Your task to perform on an android device: change notification settings in the gmail app Image 0: 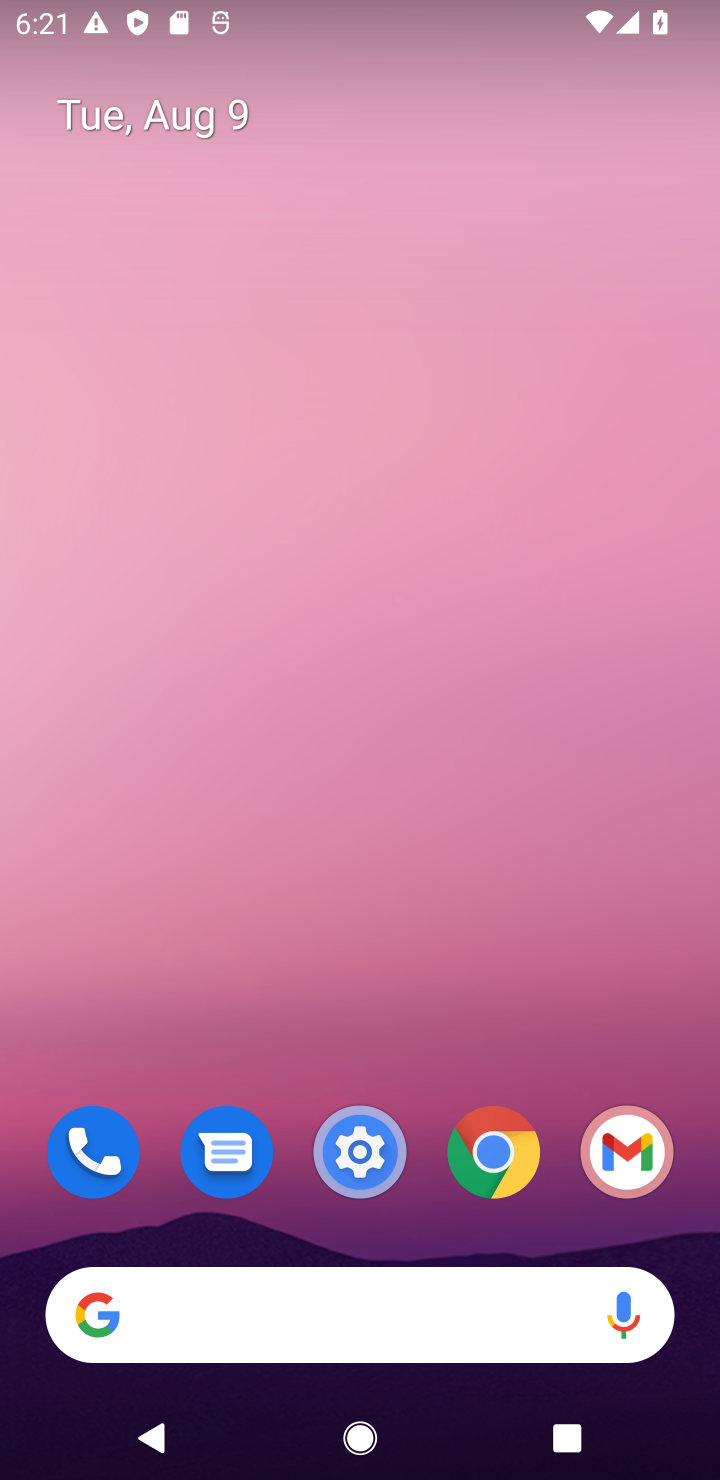
Step 0: click (649, 1150)
Your task to perform on an android device: change notification settings in the gmail app Image 1: 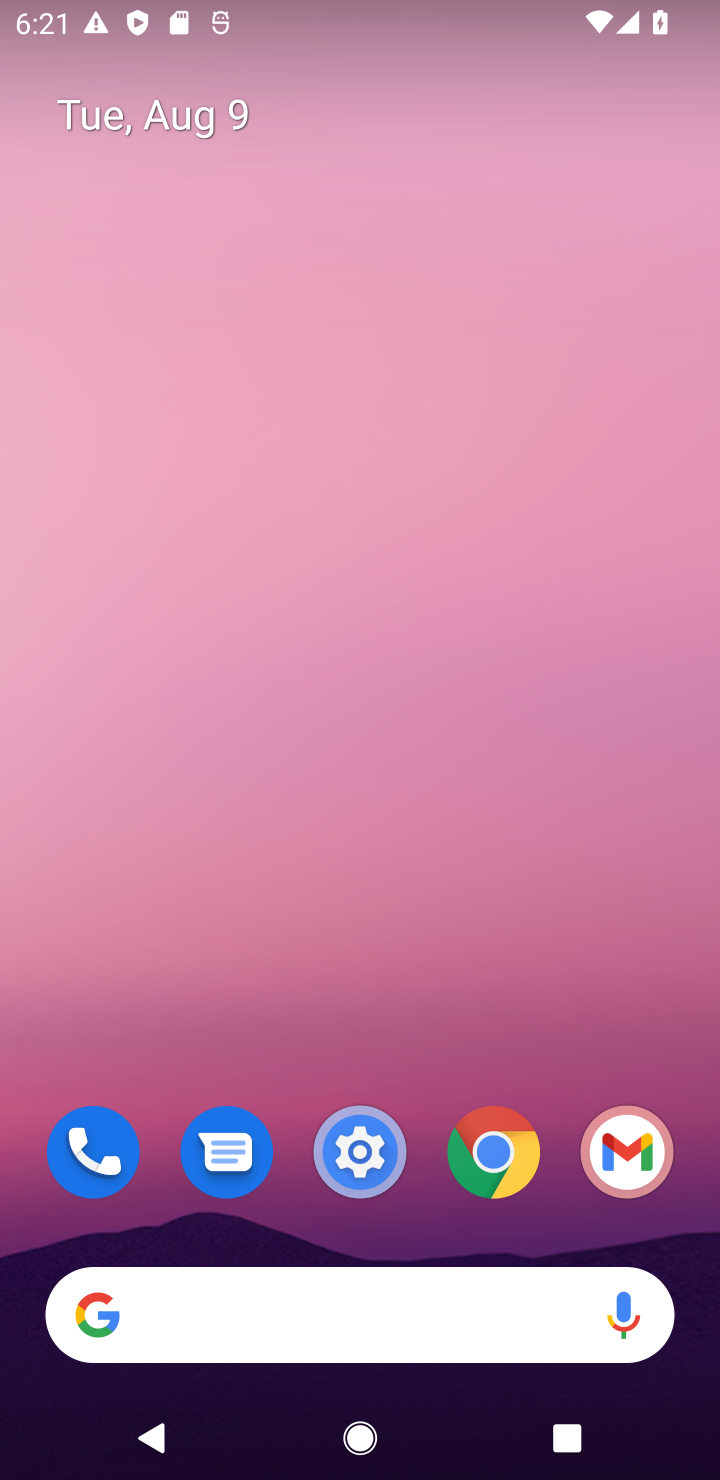
Step 1: click (626, 1143)
Your task to perform on an android device: change notification settings in the gmail app Image 2: 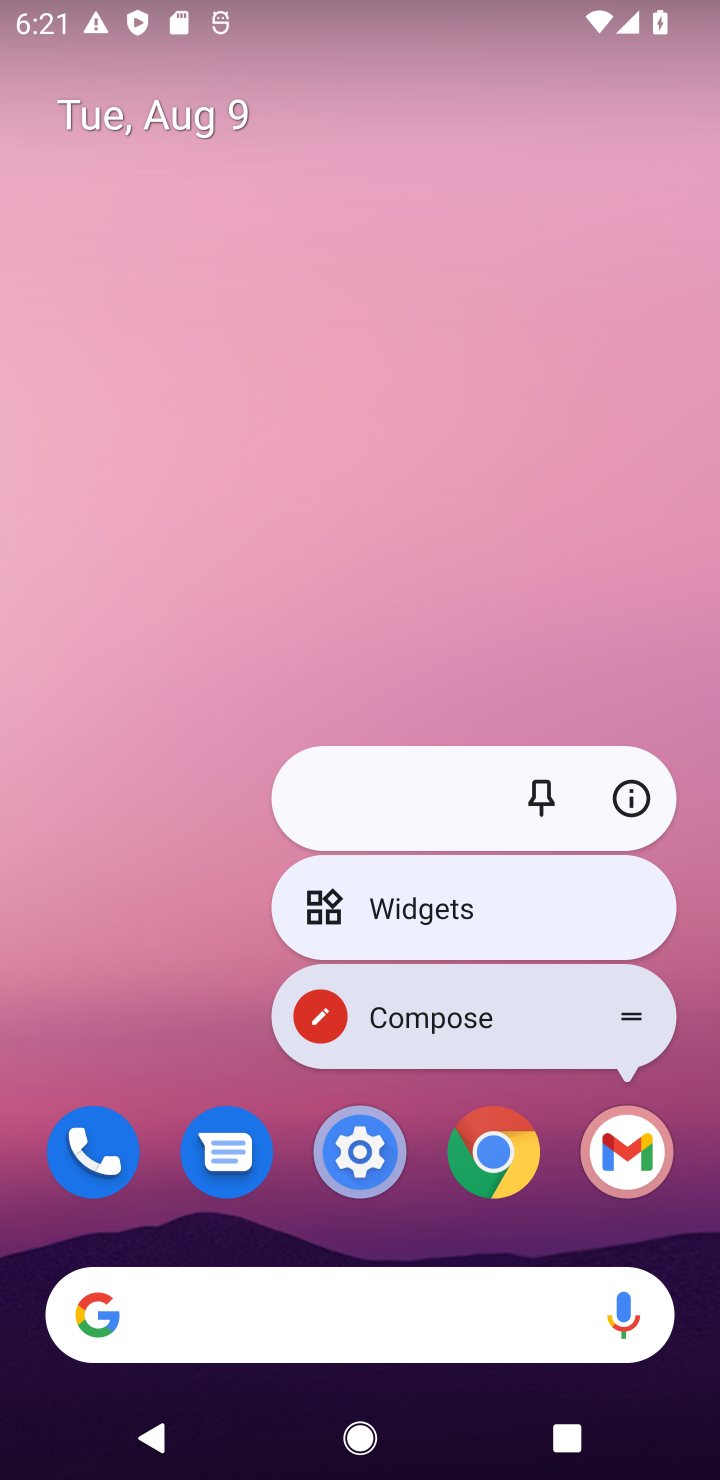
Step 2: click (622, 783)
Your task to perform on an android device: change notification settings in the gmail app Image 3: 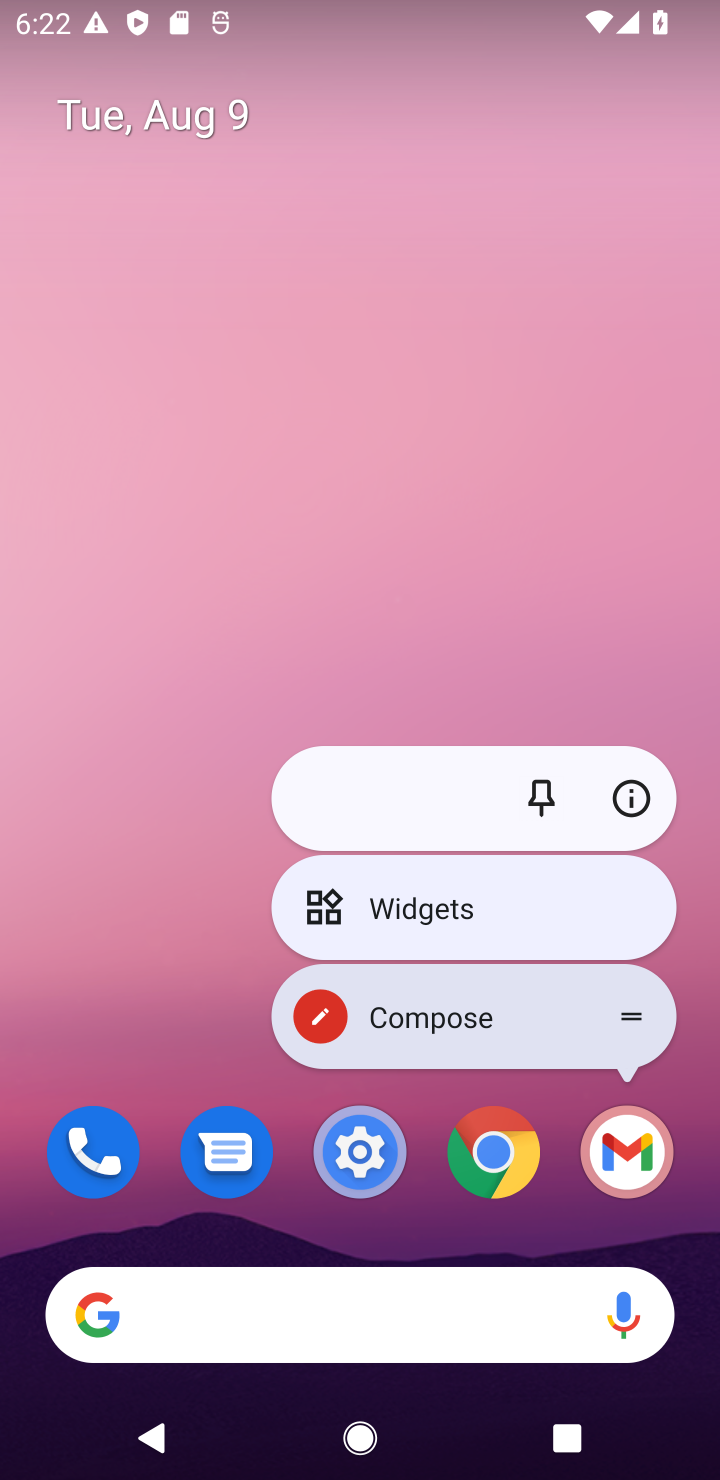
Step 3: click (617, 815)
Your task to perform on an android device: change notification settings in the gmail app Image 4: 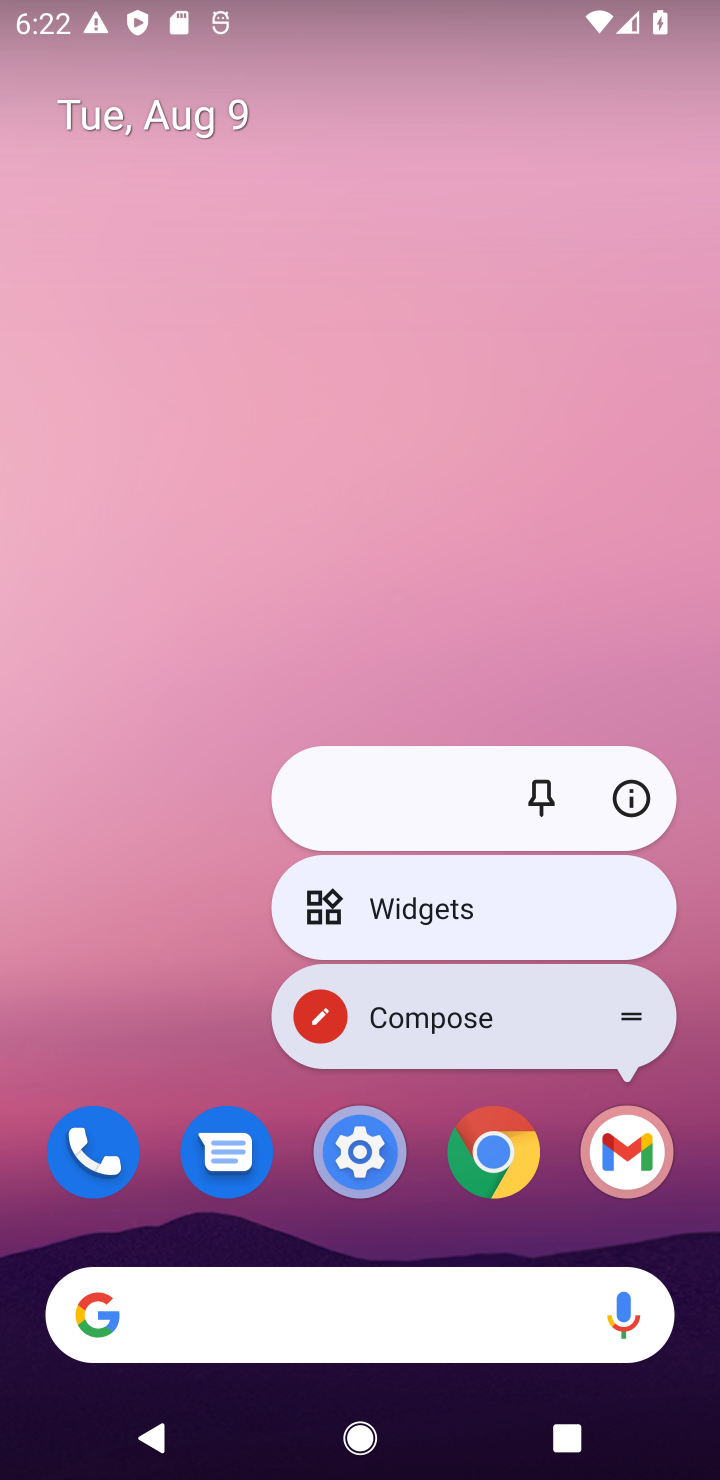
Step 4: click (634, 788)
Your task to perform on an android device: change notification settings in the gmail app Image 5: 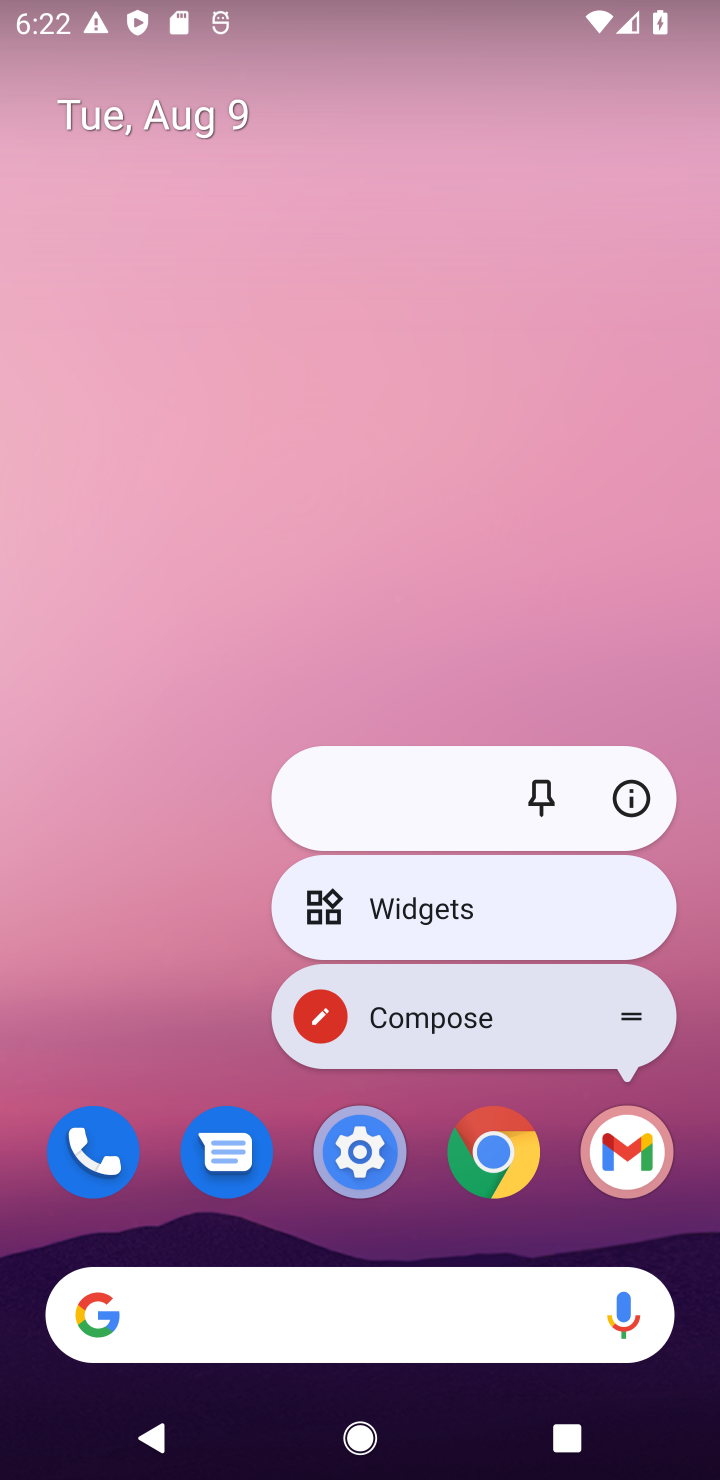
Step 5: click (640, 795)
Your task to perform on an android device: change notification settings in the gmail app Image 6: 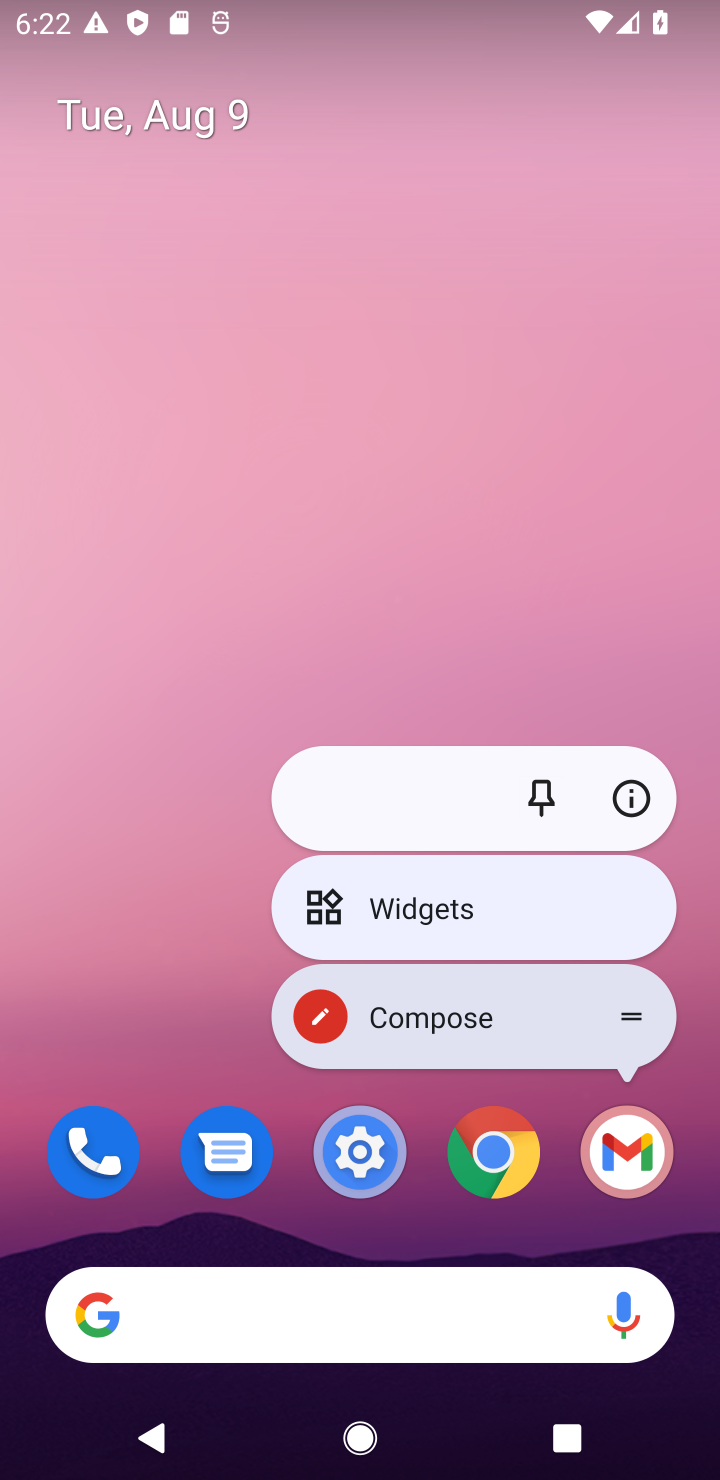
Step 6: click (640, 795)
Your task to perform on an android device: change notification settings in the gmail app Image 7: 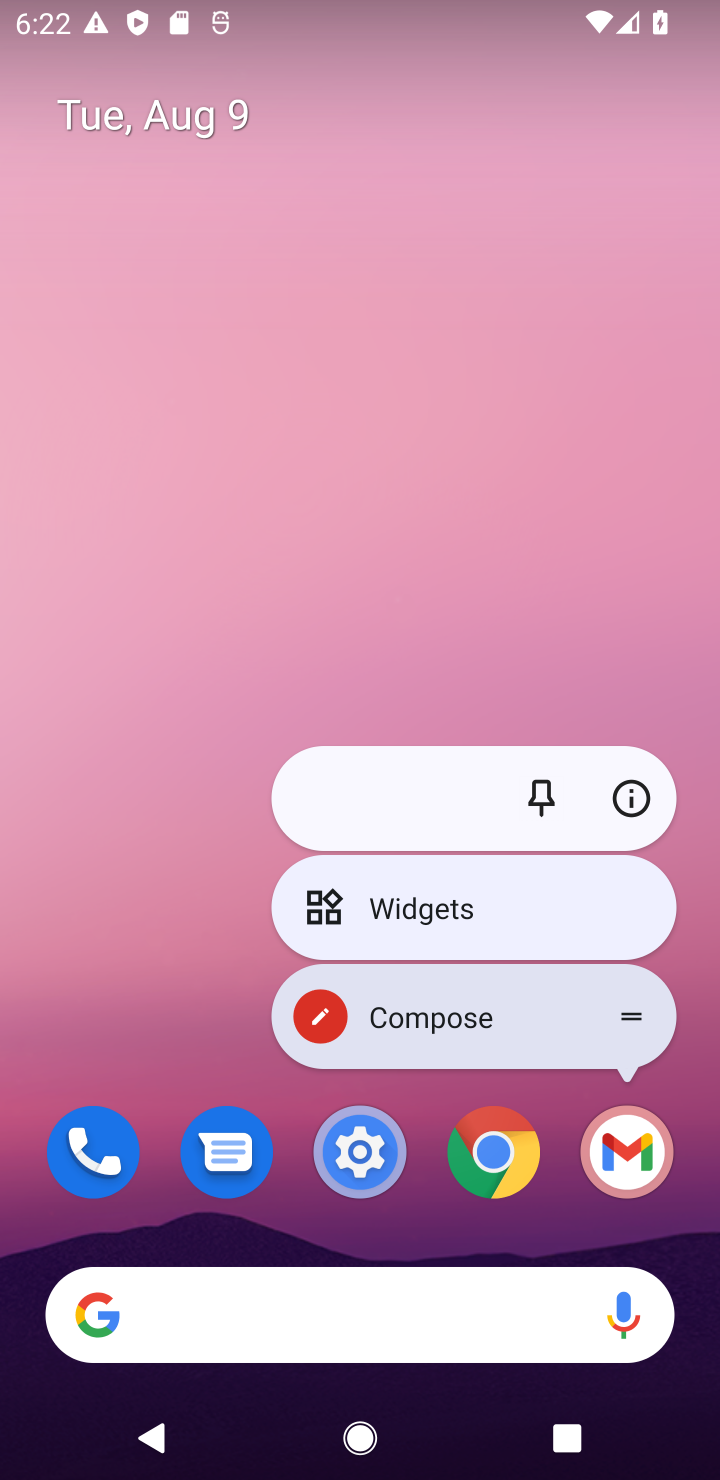
Step 7: click (183, 428)
Your task to perform on an android device: change notification settings in the gmail app Image 8: 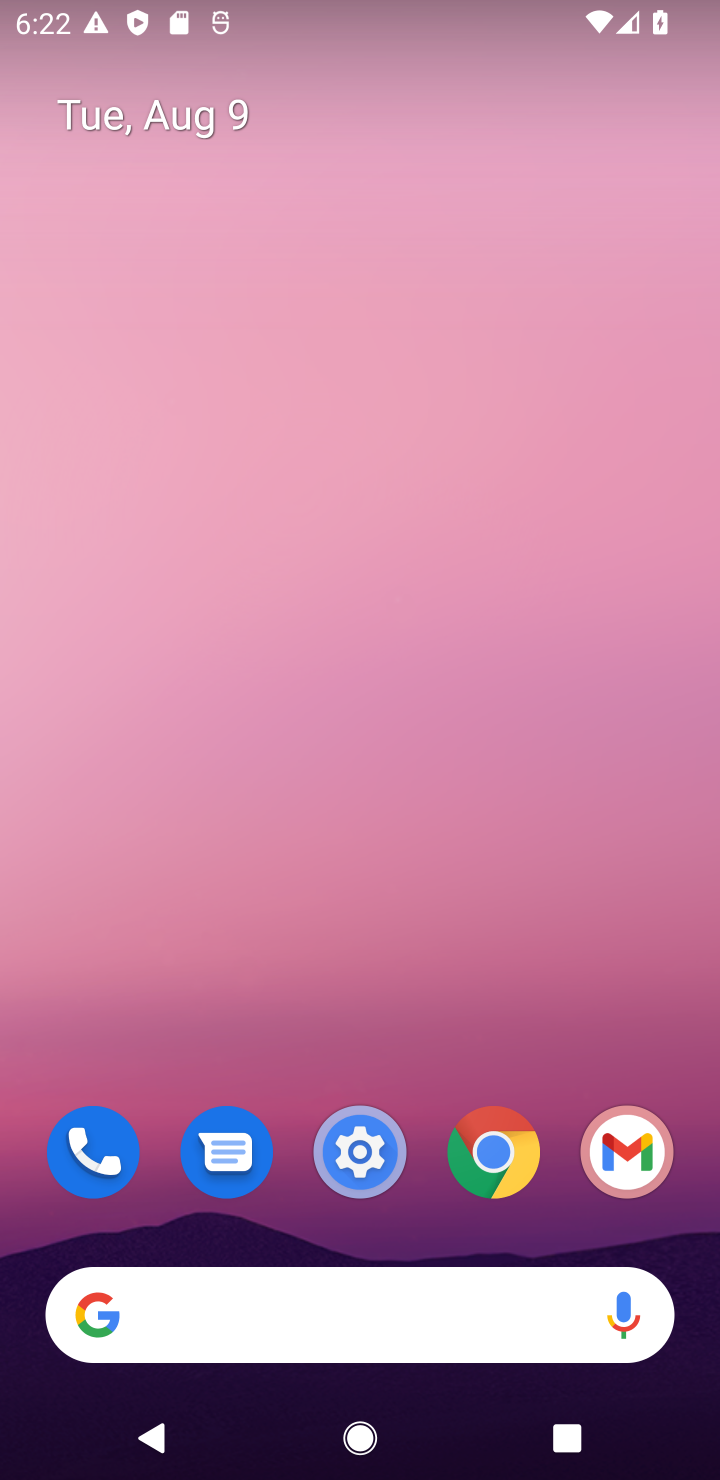
Step 8: click (637, 1154)
Your task to perform on an android device: change notification settings in the gmail app Image 9: 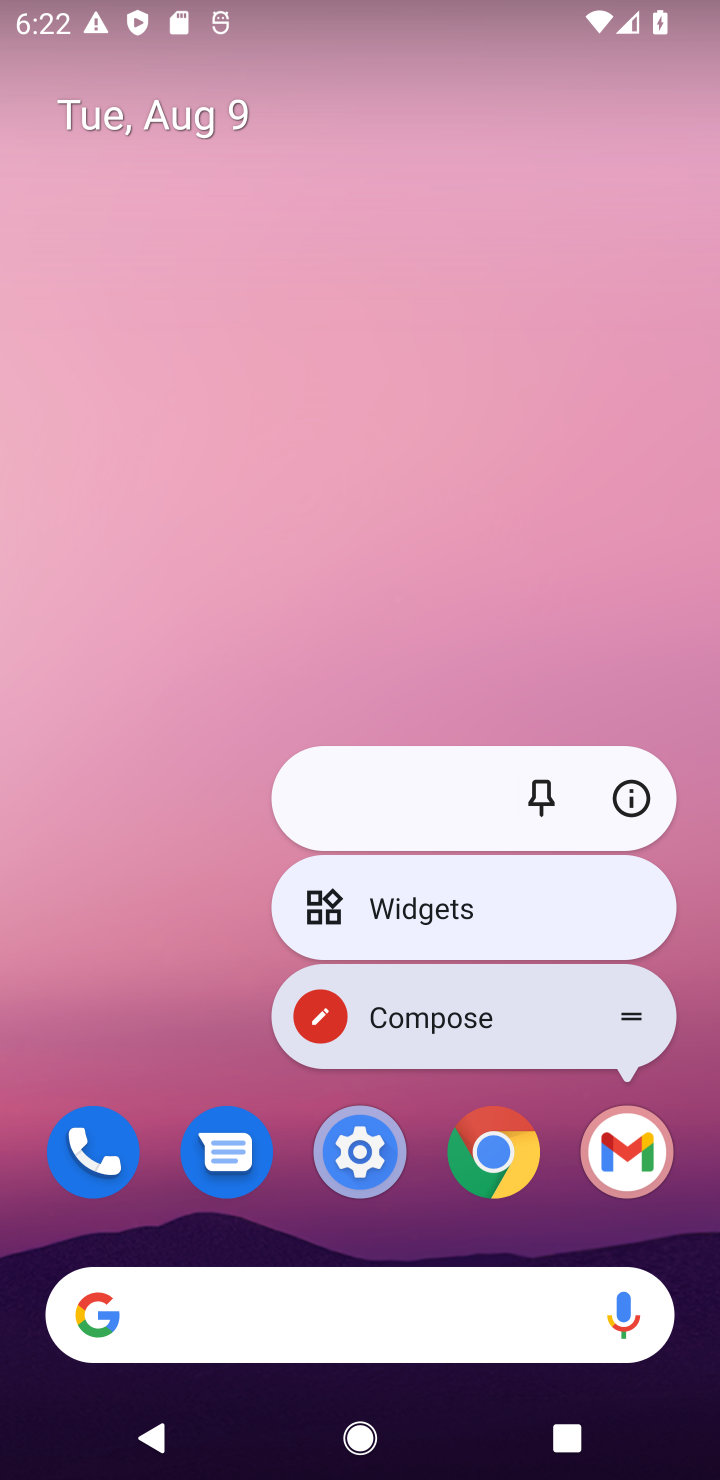
Step 9: click (629, 794)
Your task to perform on an android device: change notification settings in the gmail app Image 10: 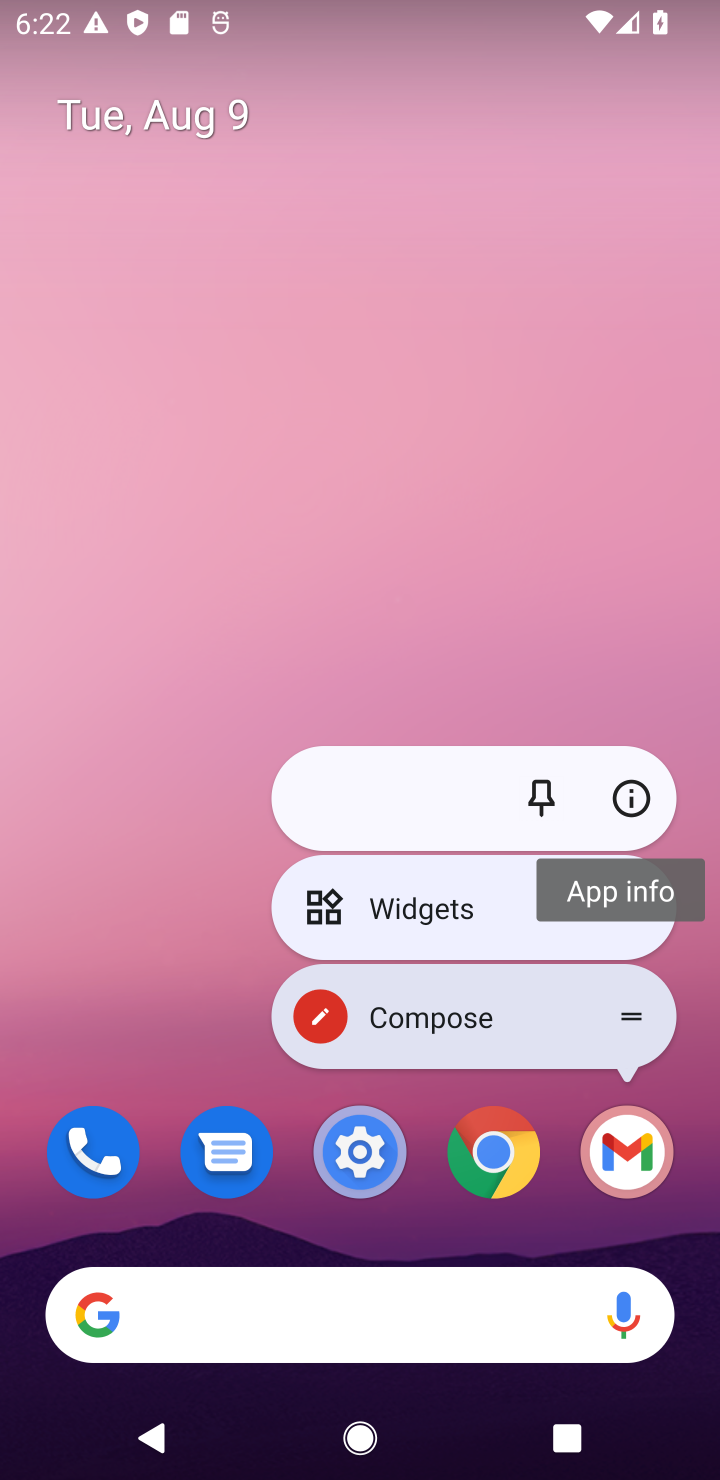
Step 10: click (629, 794)
Your task to perform on an android device: change notification settings in the gmail app Image 11: 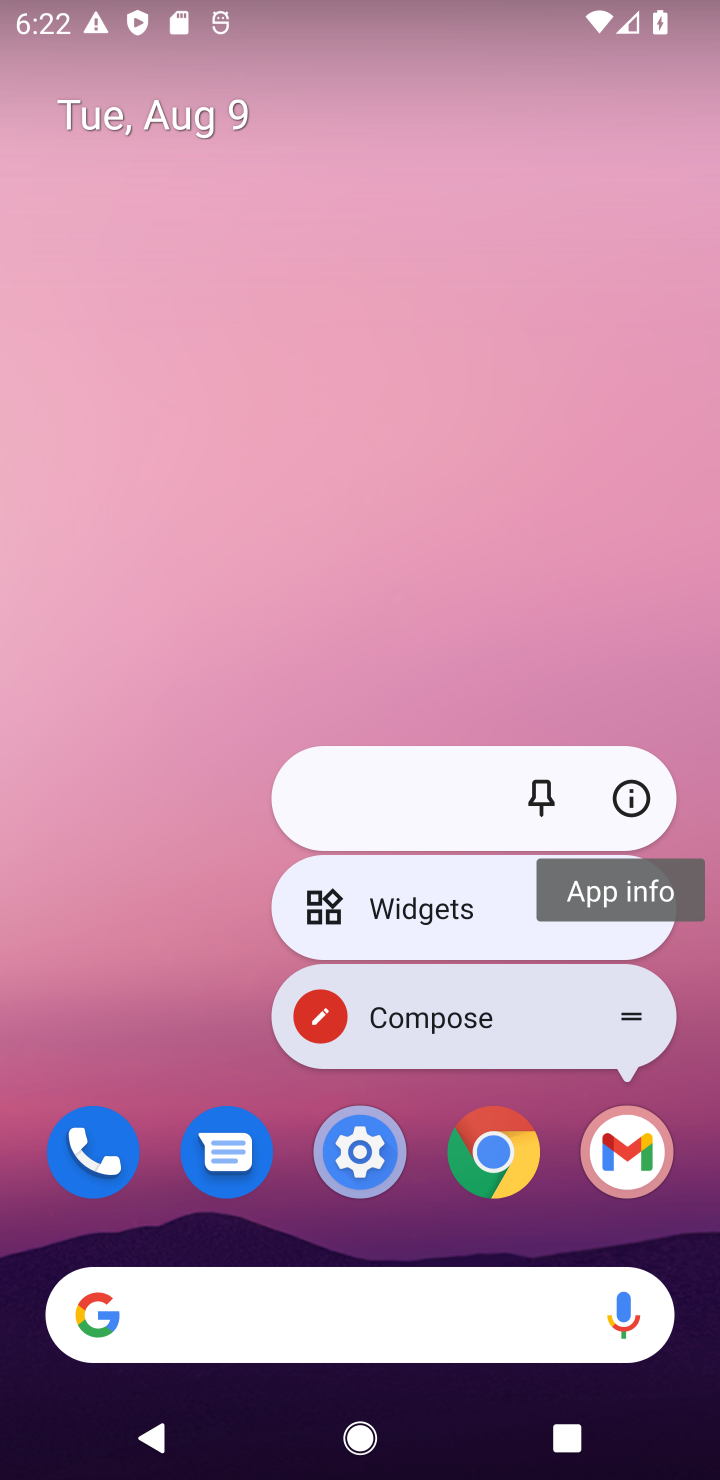
Step 11: click (664, 797)
Your task to perform on an android device: change notification settings in the gmail app Image 12: 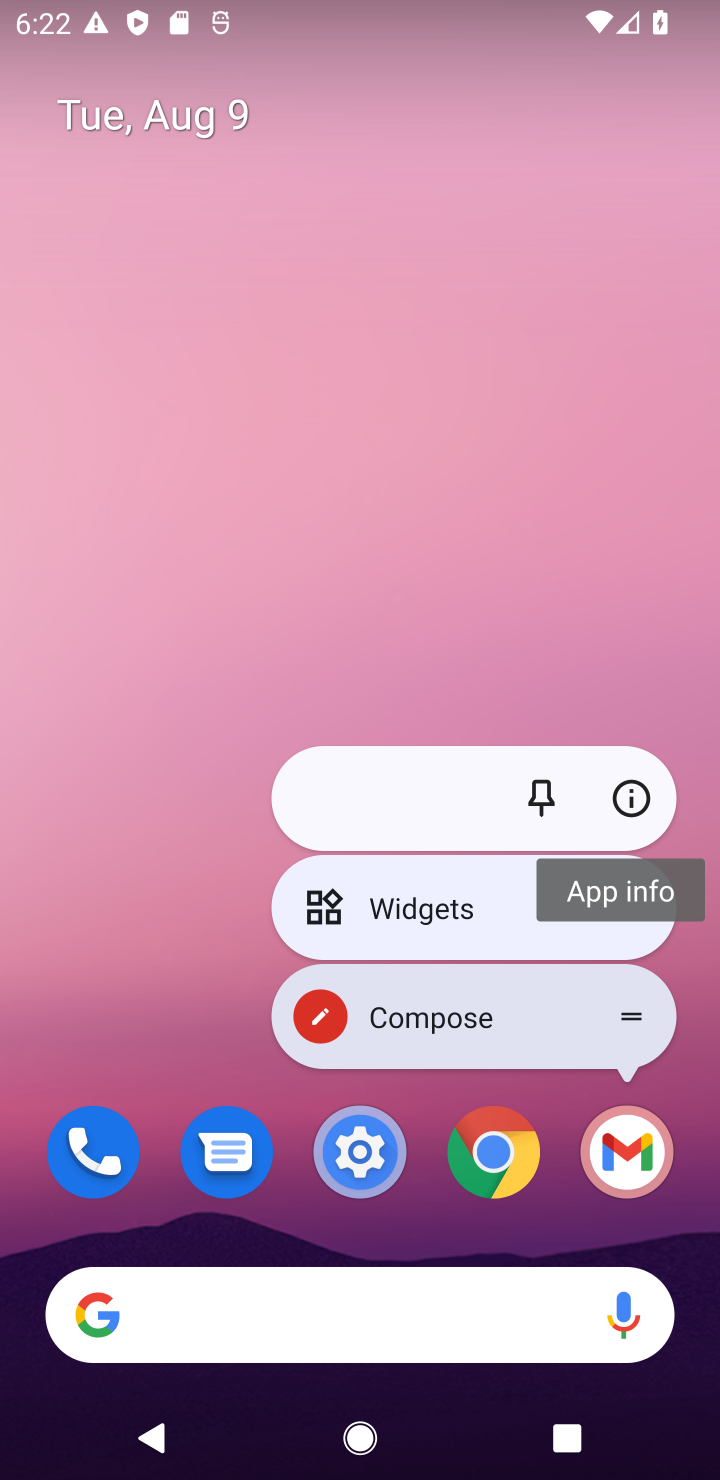
Step 12: click (644, 797)
Your task to perform on an android device: change notification settings in the gmail app Image 13: 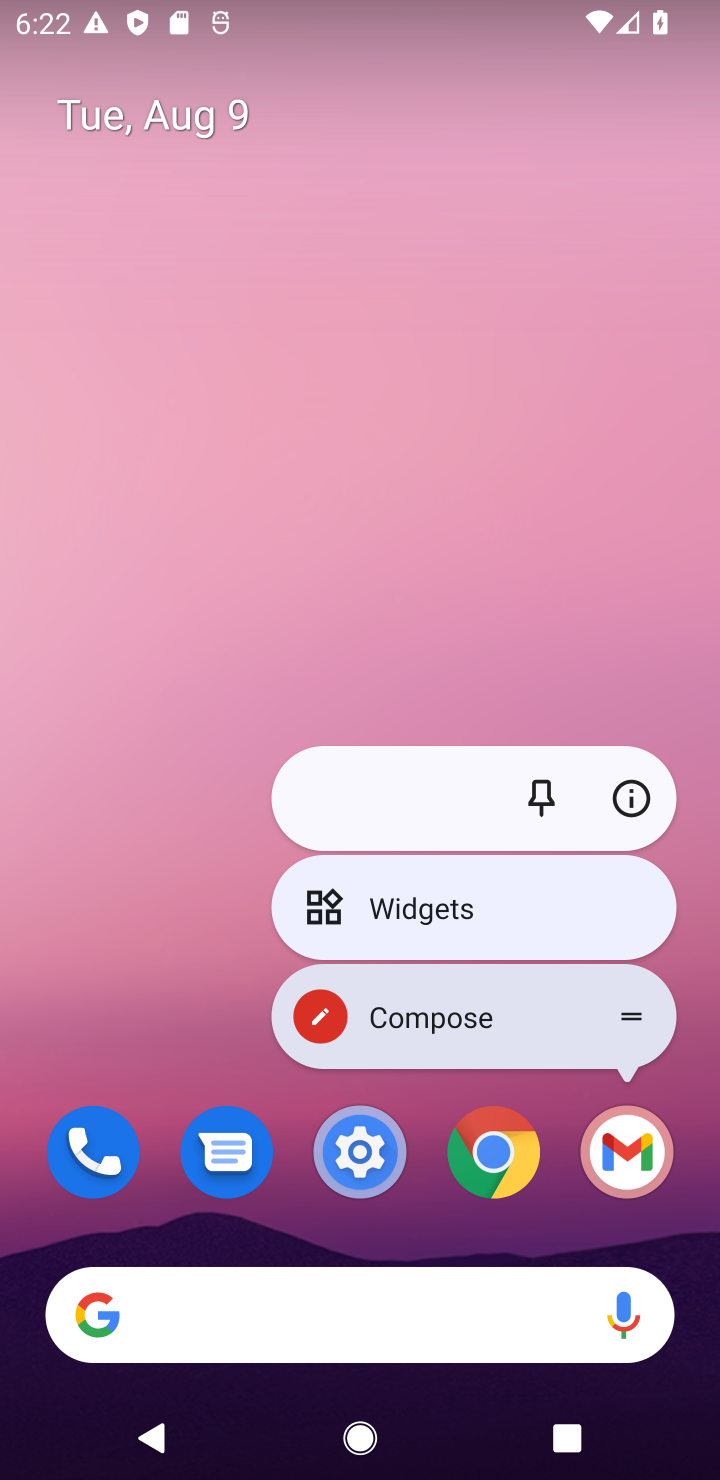
Step 13: click (627, 797)
Your task to perform on an android device: change notification settings in the gmail app Image 14: 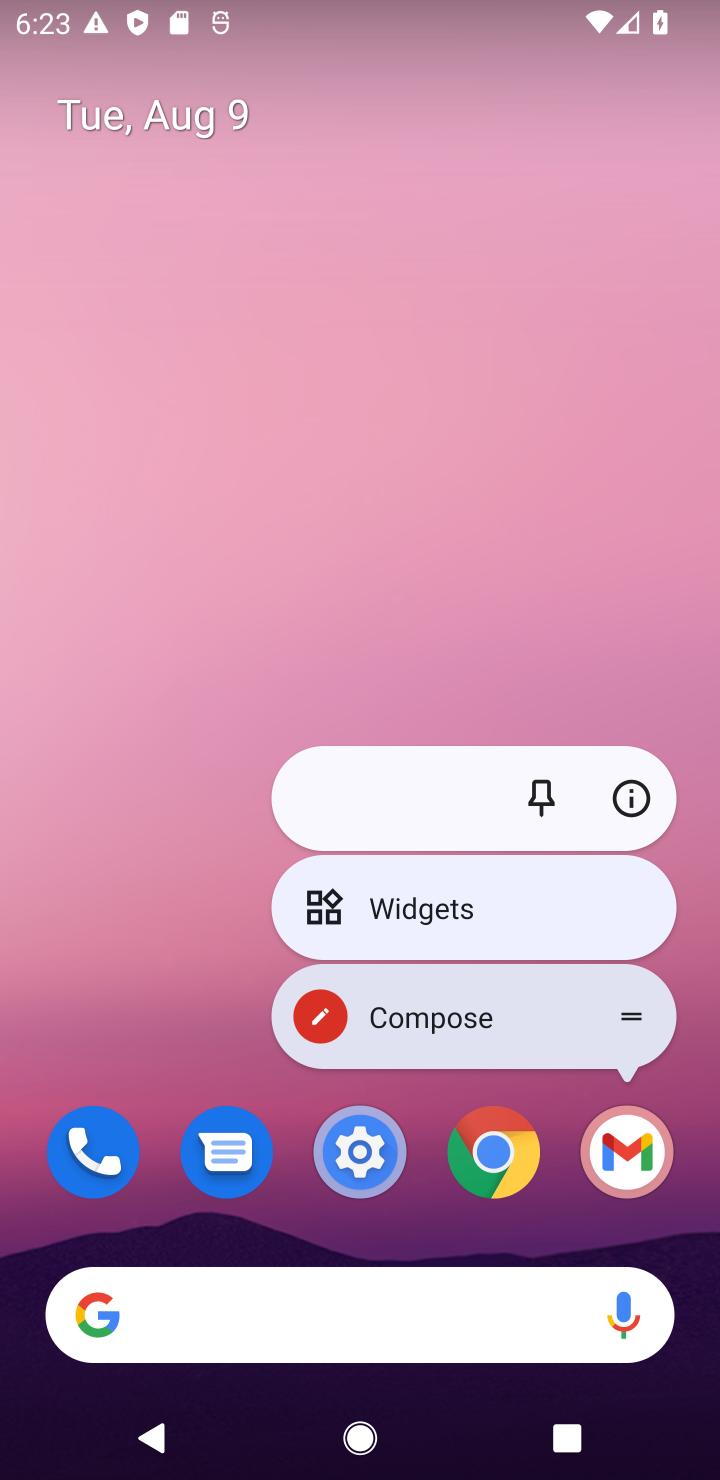
Step 14: click (631, 1162)
Your task to perform on an android device: change notification settings in the gmail app Image 15: 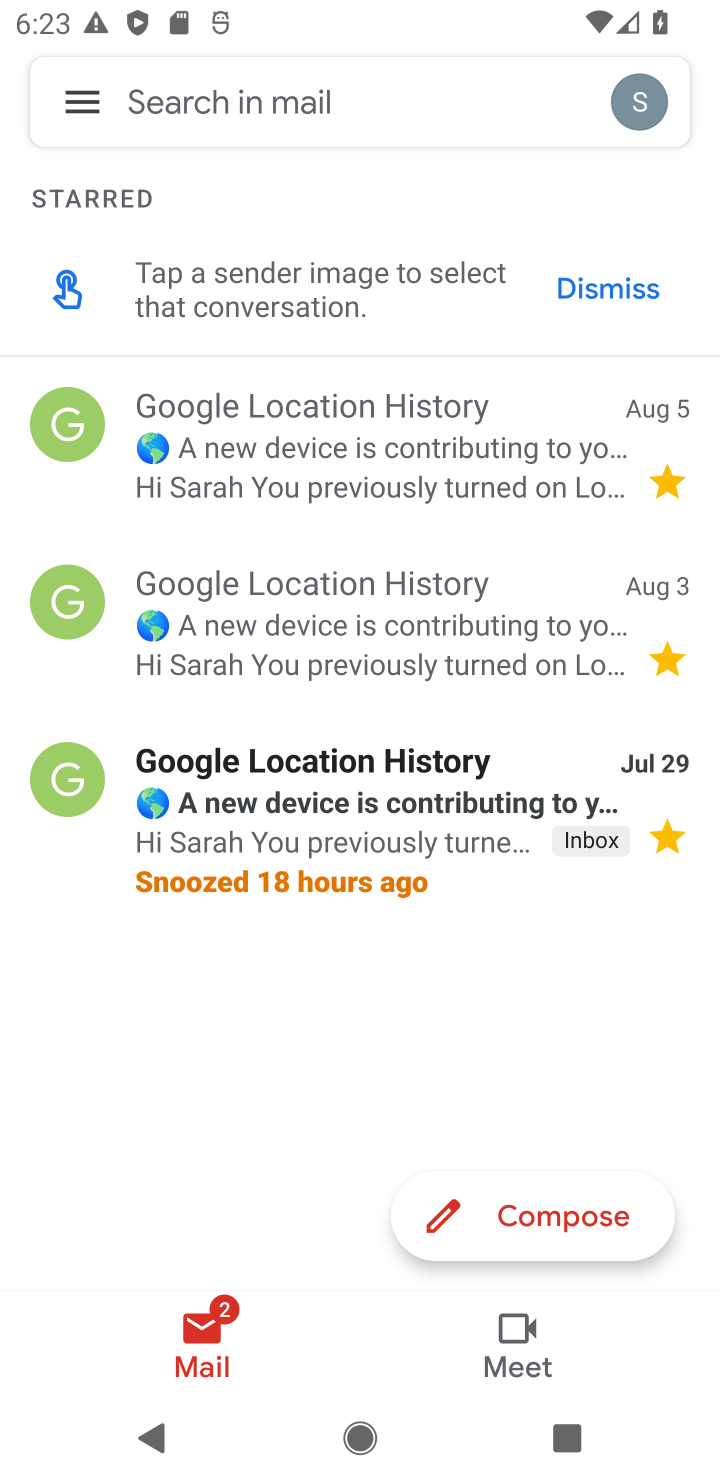
Step 15: click (78, 103)
Your task to perform on an android device: change notification settings in the gmail app Image 16: 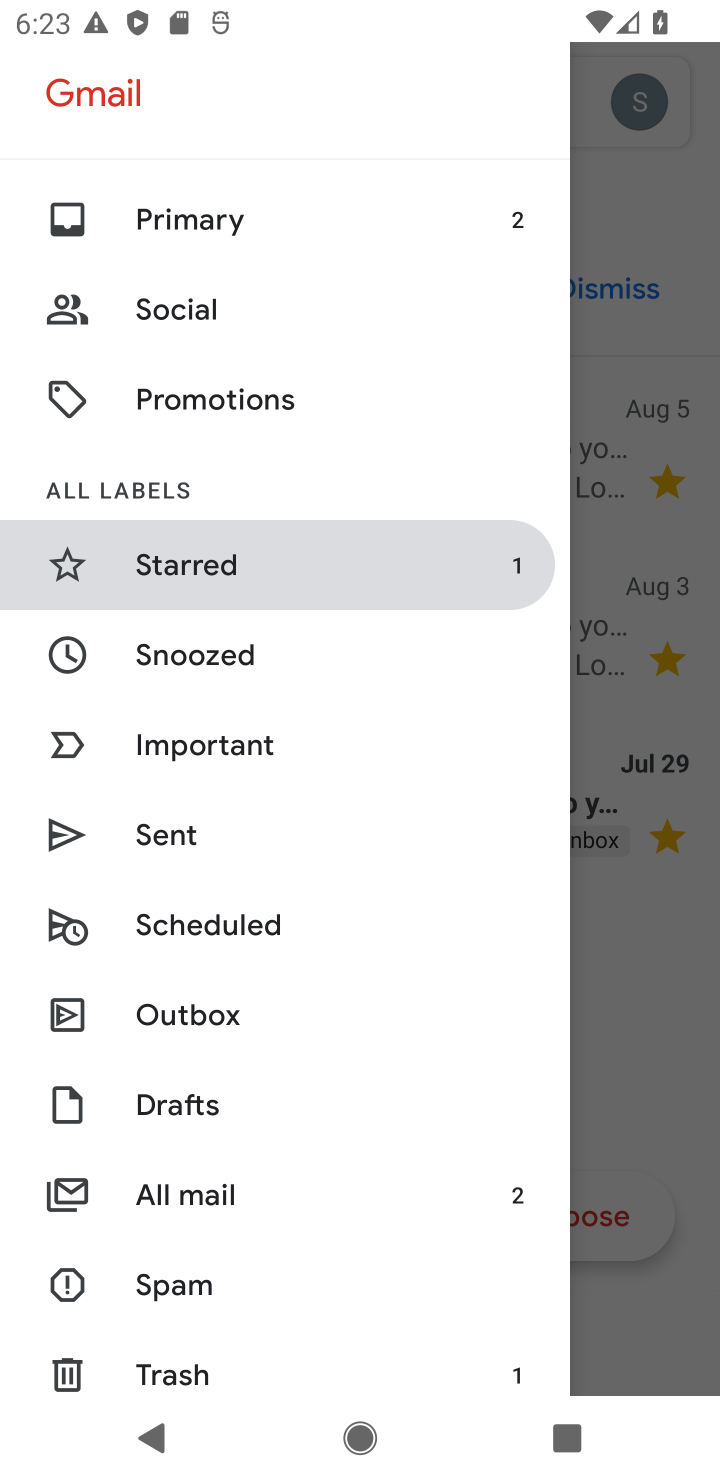
Step 16: drag from (141, 1224) to (330, 9)
Your task to perform on an android device: change notification settings in the gmail app Image 17: 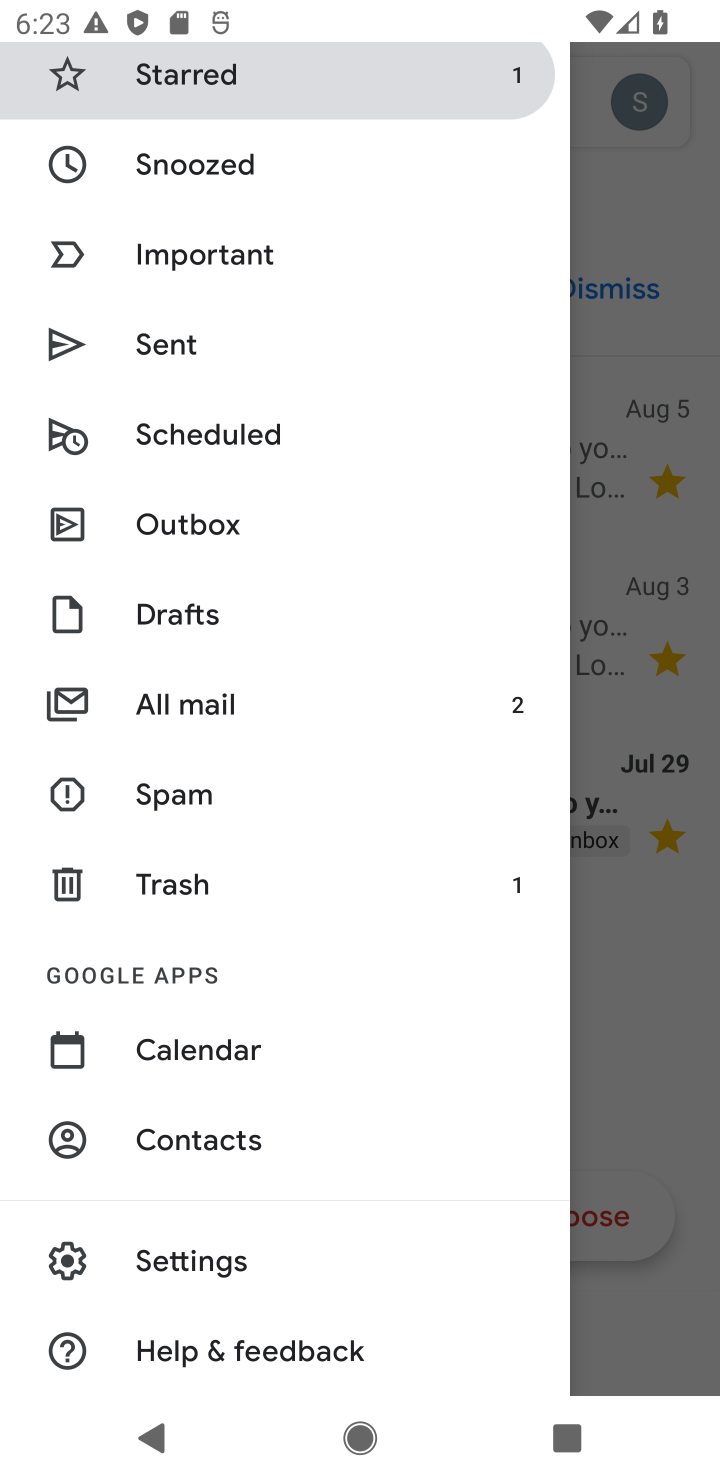
Step 17: click (243, 1258)
Your task to perform on an android device: change notification settings in the gmail app Image 18: 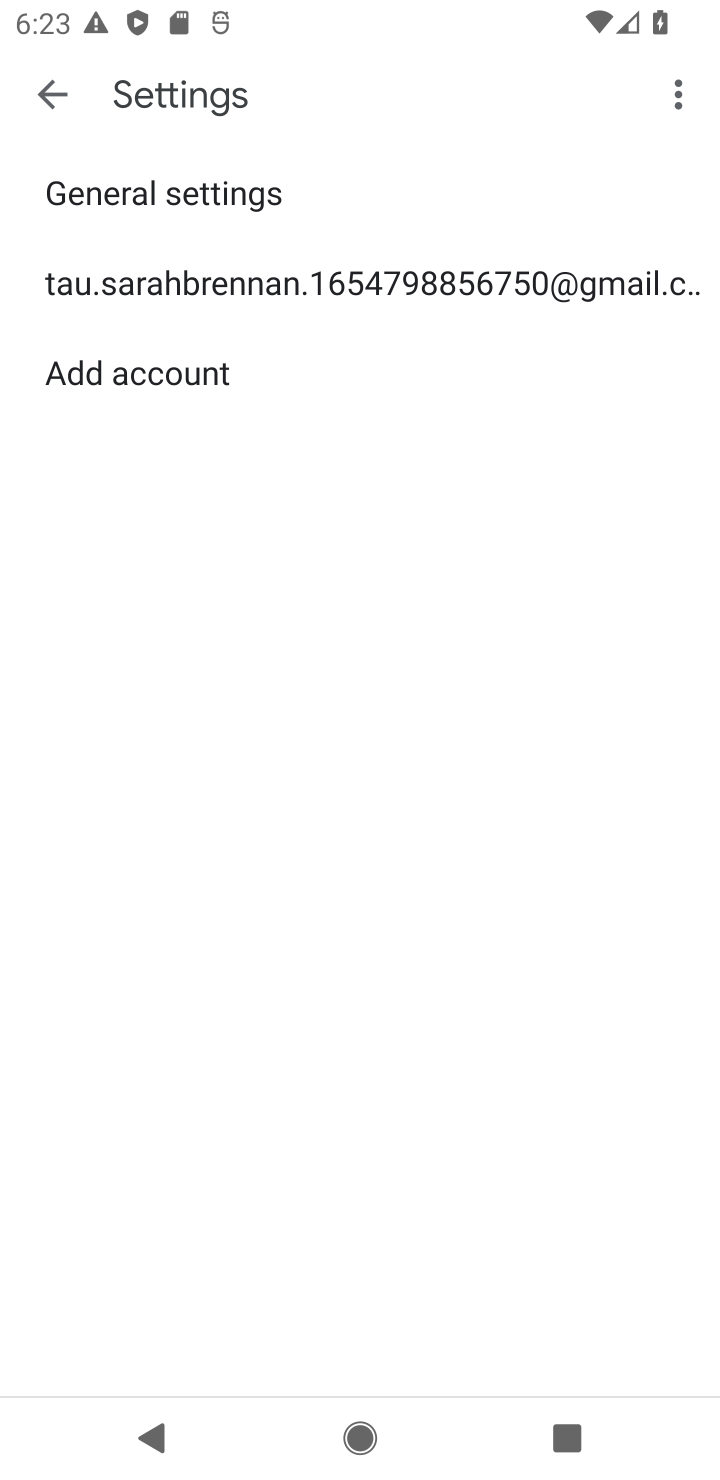
Step 18: click (285, 276)
Your task to perform on an android device: change notification settings in the gmail app Image 19: 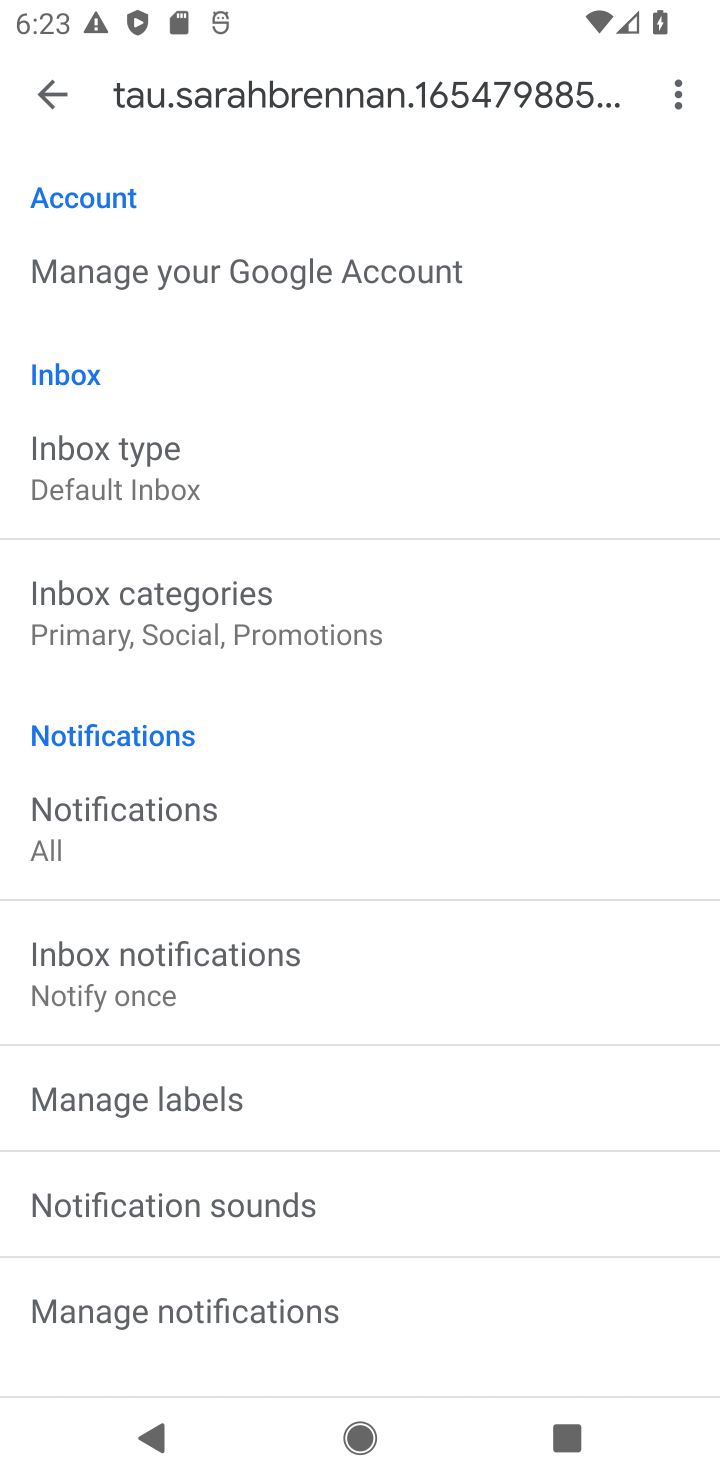
Step 19: click (209, 1337)
Your task to perform on an android device: change notification settings in the gmail app Image 20: 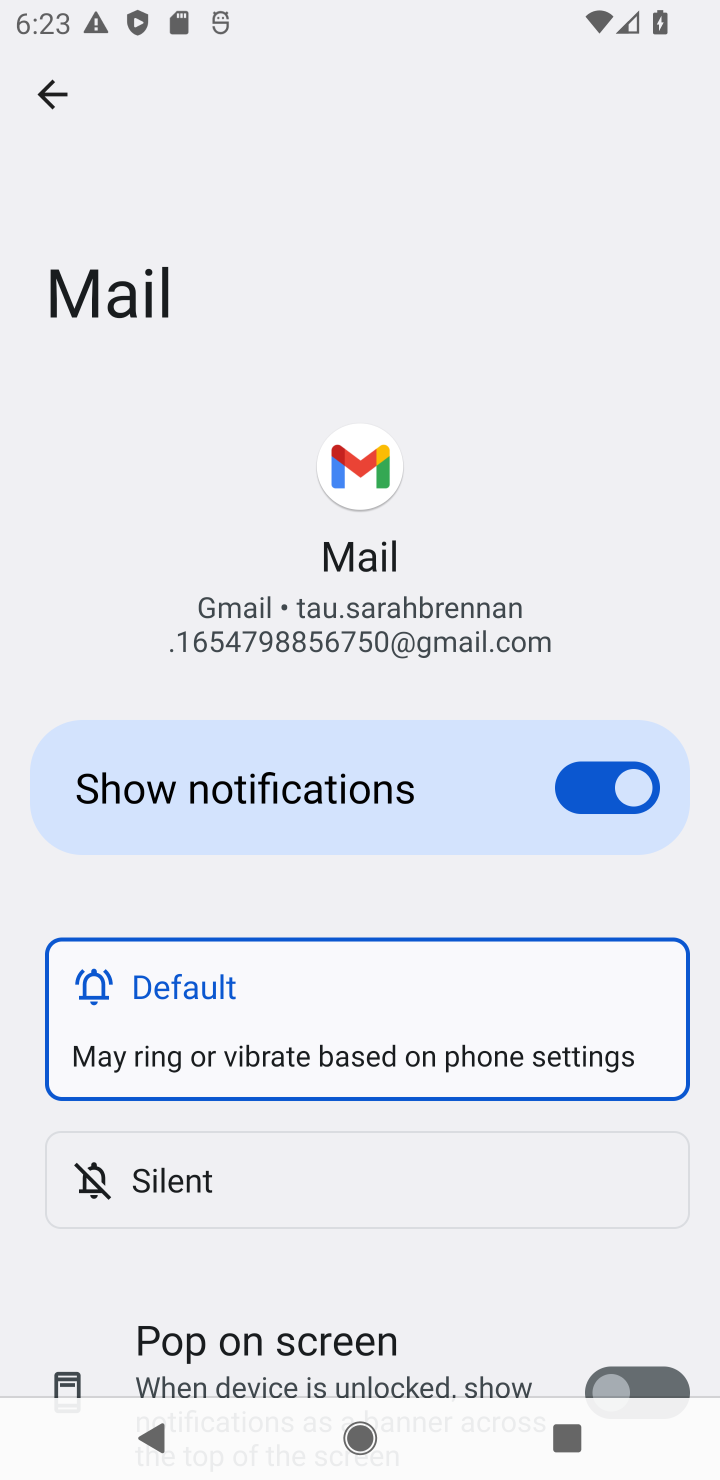
Step 20: drag from (264, 1199) to (451, 476)
Your task to perform on an android device: change notification settings in the gmail app Image 21: 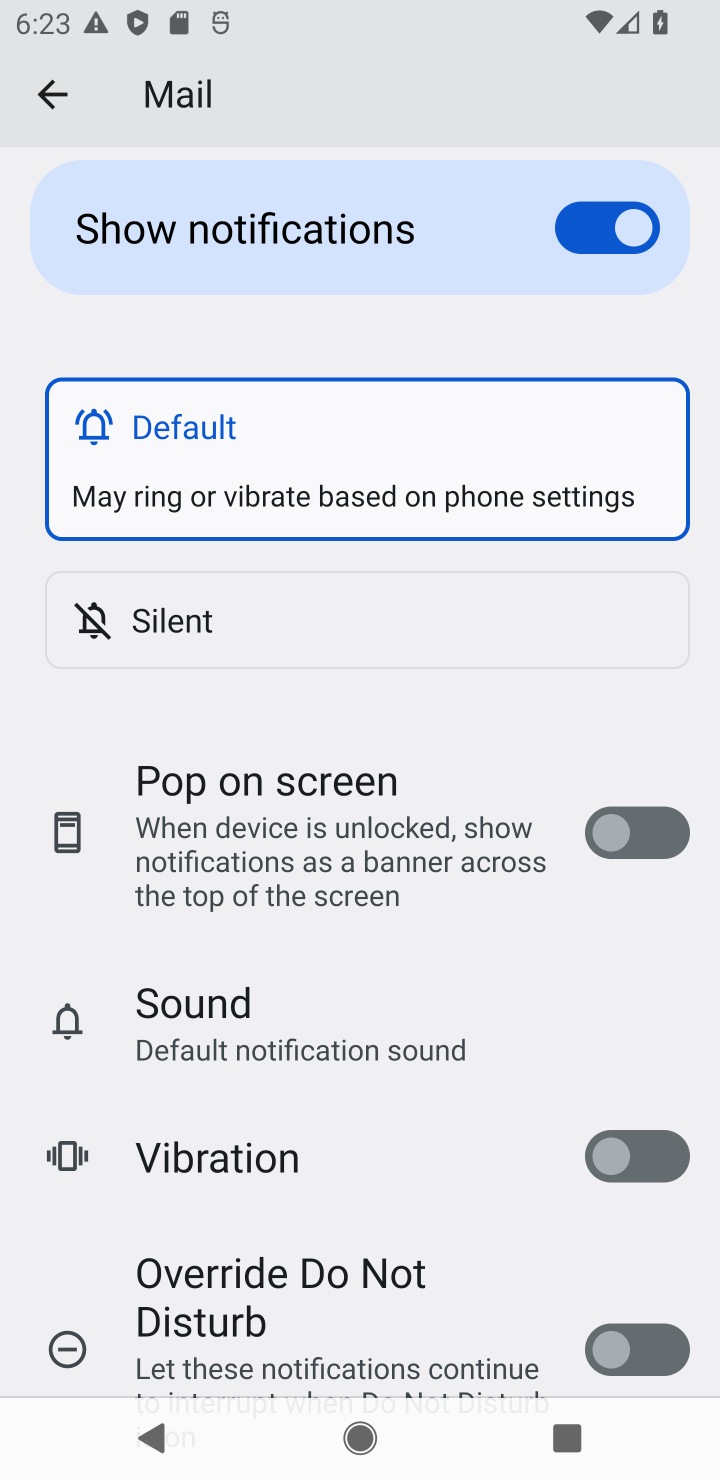
Step 21: click (622, 1152)
Your task to perform on an android device: change notification settings in the gmail app Image 22: 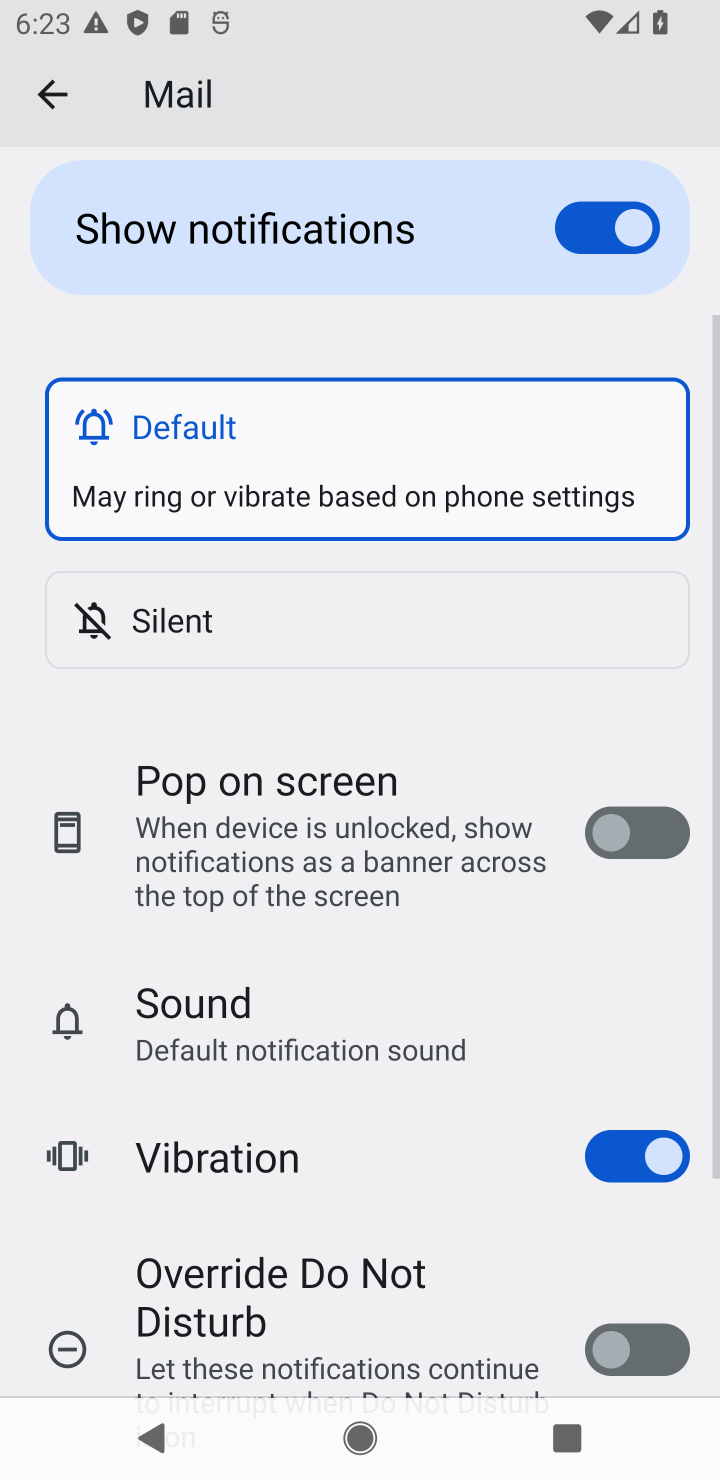
Step 22: task complete